Your task to perform on an android device: add a label to a message in the gmail app Image 0: 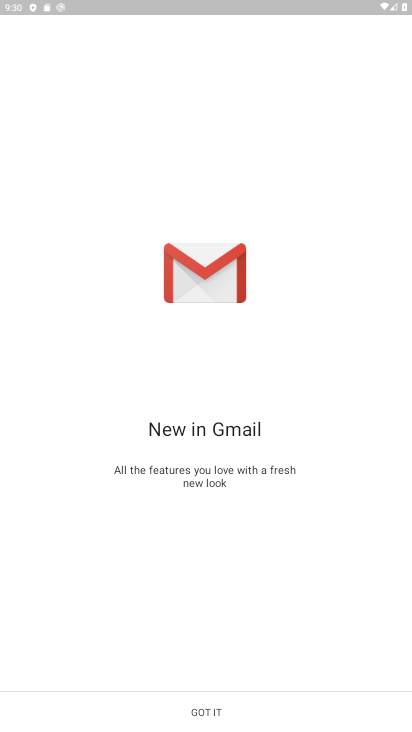
Step 0: press home button
Your task to perform on an android device: add a label to a message in the gmail app Image 1: 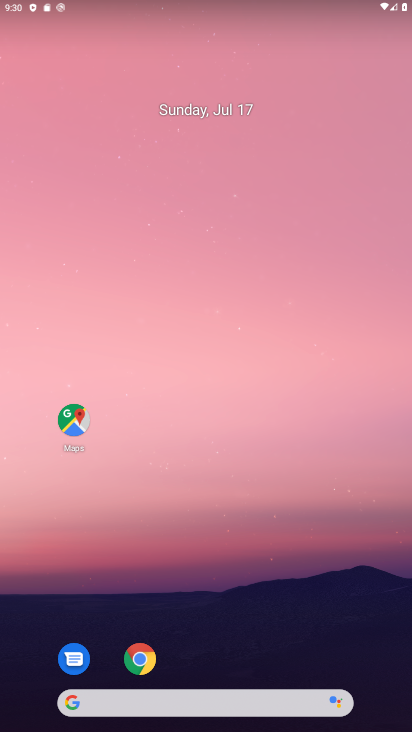
Step 1: drag from (212, 659) to (205, 98)
Your task to perform on an android device: add a label to a message in the gmail app Image 2: 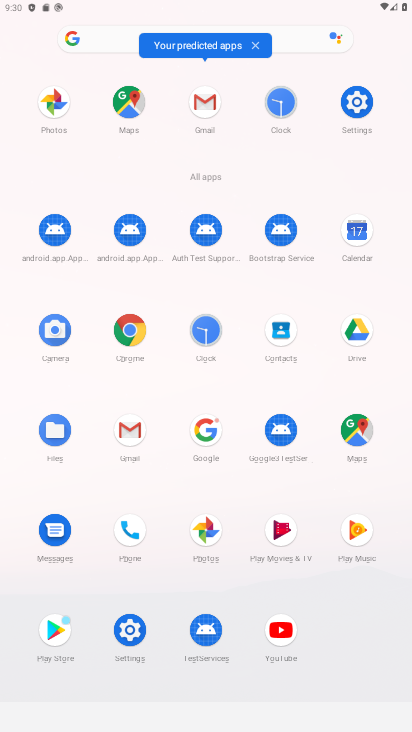
Step 2: click (130, 425)
Your task to perform on an android device: add a label to a message in the gmail app Image 3: 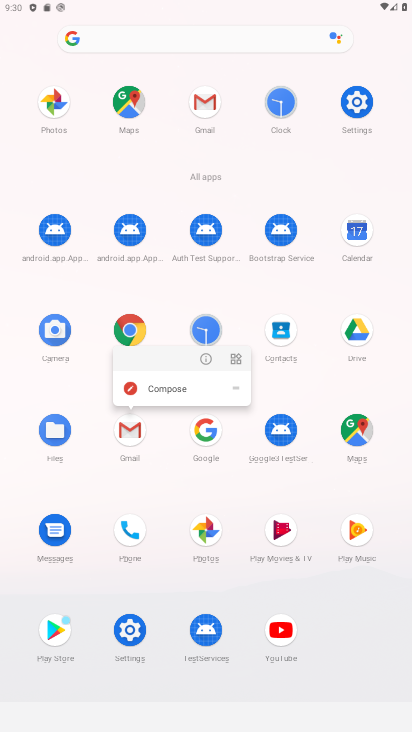
Step 3: click (134, 426)
Your task to perform on an android device: add a label to a message in the gmail app Image 4: 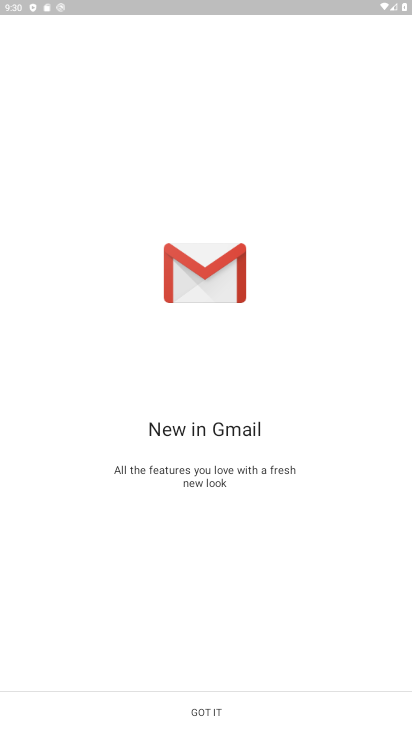
Step 4: click (206, 713)
Your task to perform on an android device: add a label to a message in the gmail app Image 5: 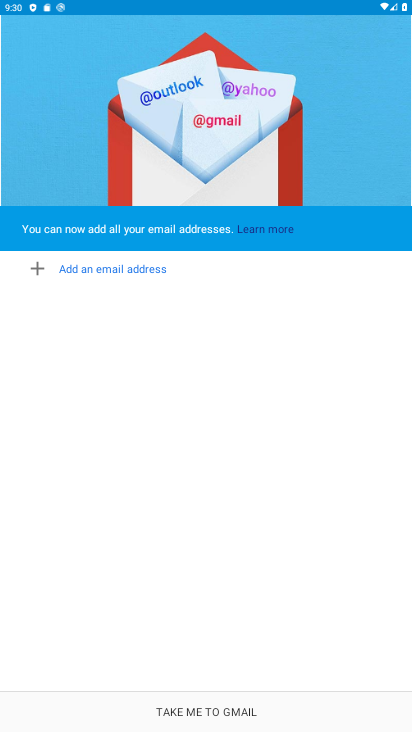
Step 5: click (206, 713)
Your task to perform on an android device: add a label to a message in the gmail app Image 6: 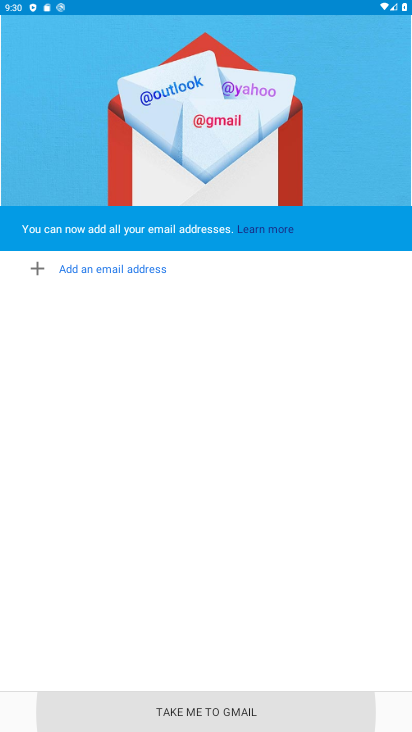
Step 6: click (206, 713)
Your task to perform on an android device: add a label to a message in the gmail app Image 7: 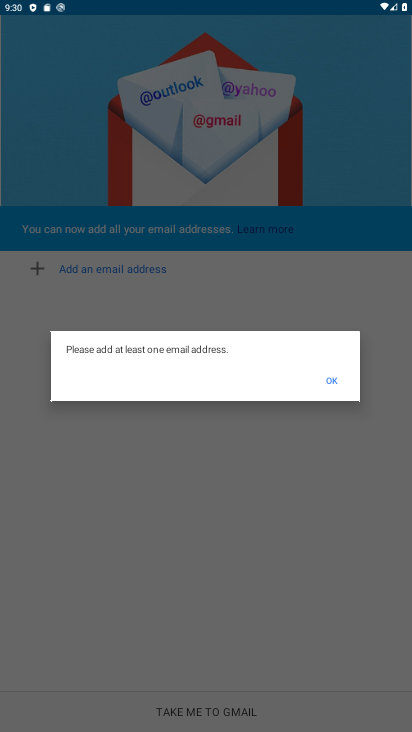
Step 7: task complete